Your task to perform on an android device: open app "DoorDash - Dasher" (install if not already installed) Image 0: 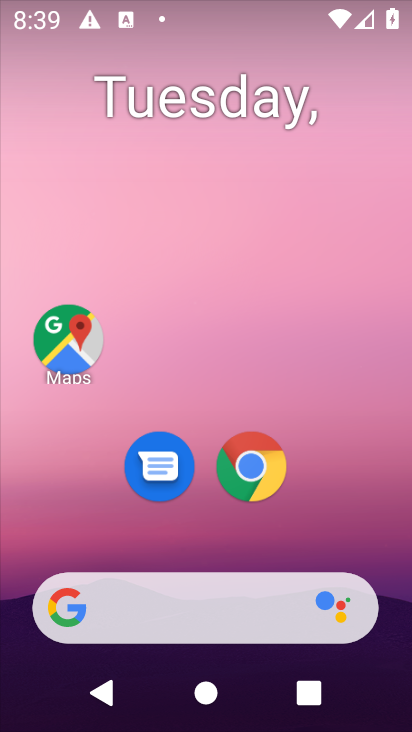
Step 0: drag from (213, 560) to (264, 71)
Your task to perform on an android device: open app "DoorDash - Dasher" (install if not already installed) Image 1: 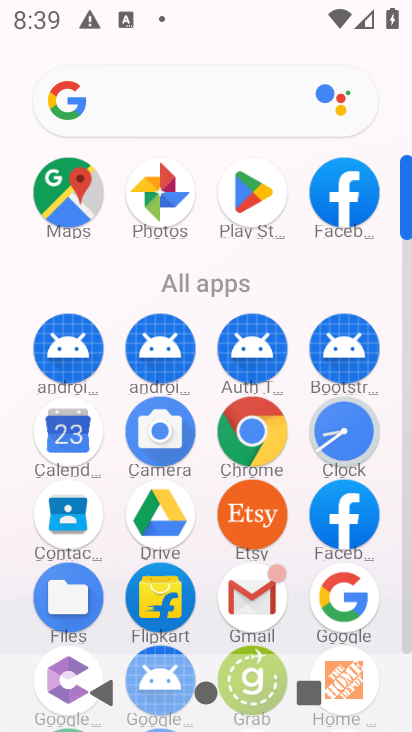
Step 1: click (253, 189)
Your task to perform on an android device: open app "DoorDash - Dasher" (install if not already installed) Image 2: 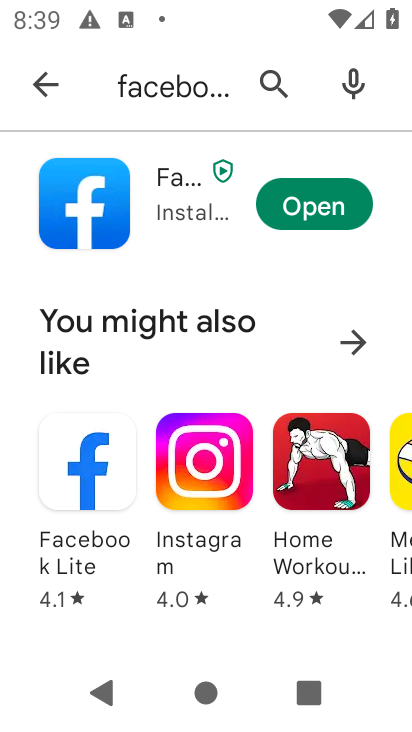
Step 2: click (274, 88)
Your task to perform on an android device: open app "DoorDash - Dasher" (install if not already installed) Image 3: 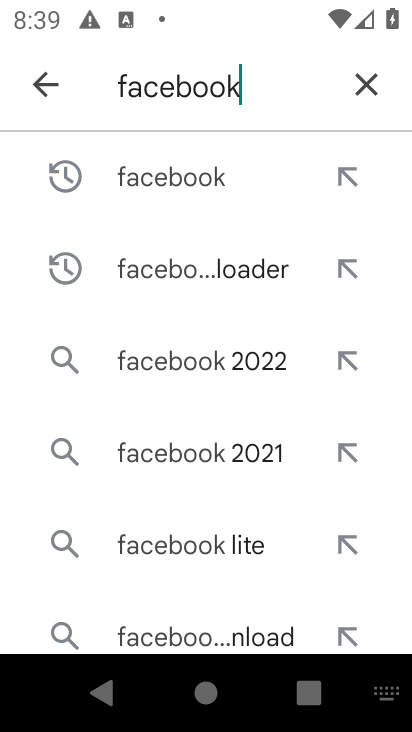
Step 3: click (366, 78)
Your task to perform on an android device: open app "DoorDash - Dasher" (install if not already installed) Image 4: 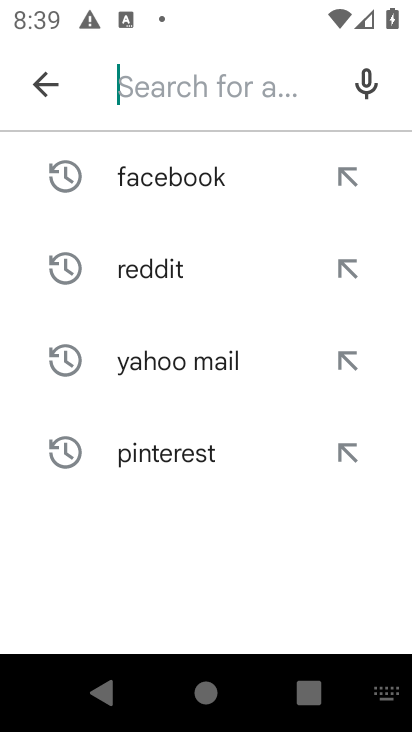
Step 4: click (135, 85)
Your task to perform on an android device: open app "DoorDash - Dasher" (install if not already installed) Image 5: 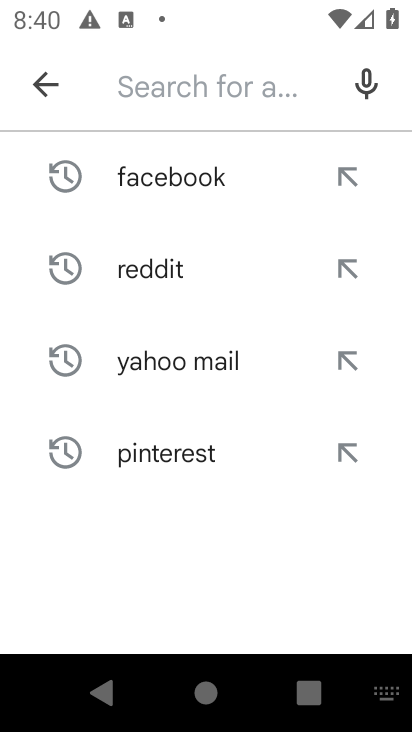
Step 5: type "doordash"
Your task to perform on an android device: open app "DoorDash - Dasher" (install if not already installed) Image 6: 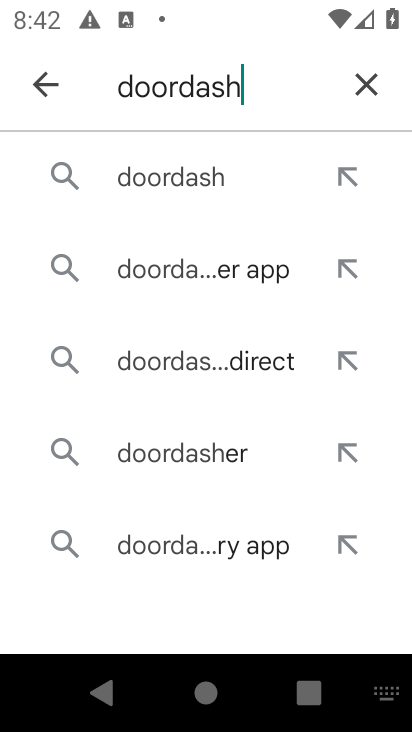
Step 6: click (174, 174)
Your task to perform on an android device: open app "DoorDash - Dasher" (install if not already installed) Image 7: 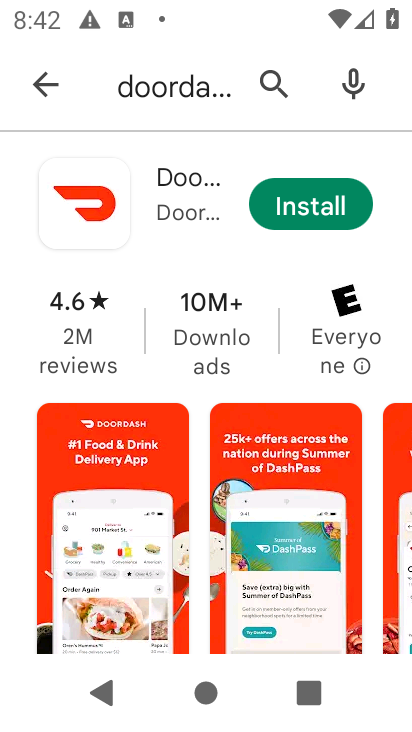
Step 7: click (288, 221)
Your task to perform on an android device: open app "DoorDash - Dasher" (install if not already installed) Image 8: 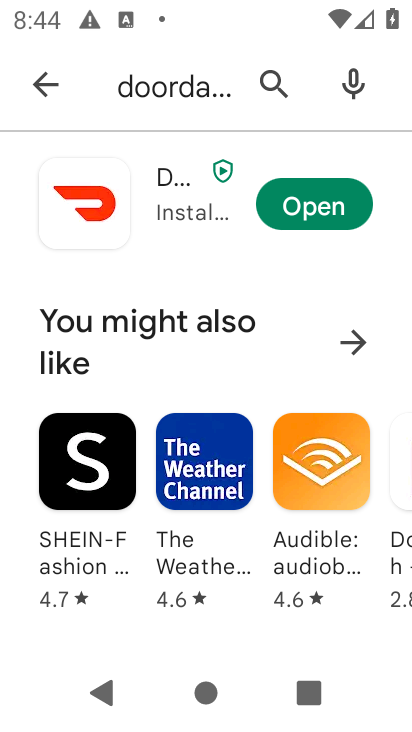
Step 8: click (318, 202)
Your task to perform on an android device: open app "DoorDash - Dasher" (install if not already installed) Image 9: 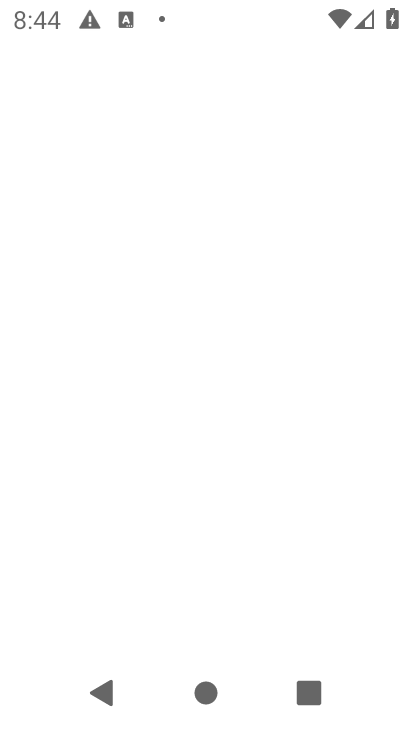
Step 9: task complete